Your task to perform on an android device: Open the stopwatch Image 0: 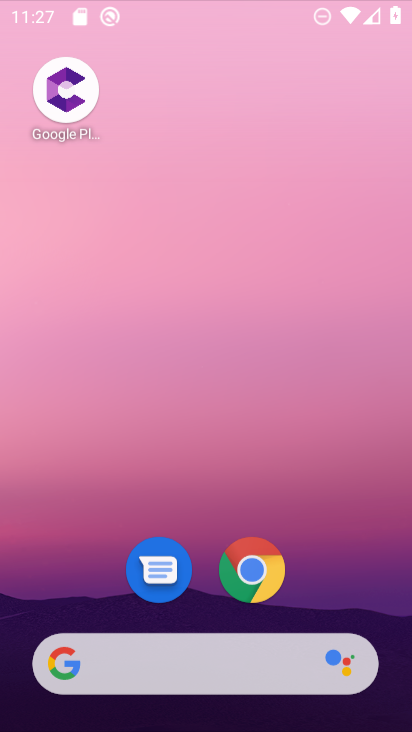
Step 0: click (158, 17)
Your task to perform on an android device: Open the stopwatch Image 1: 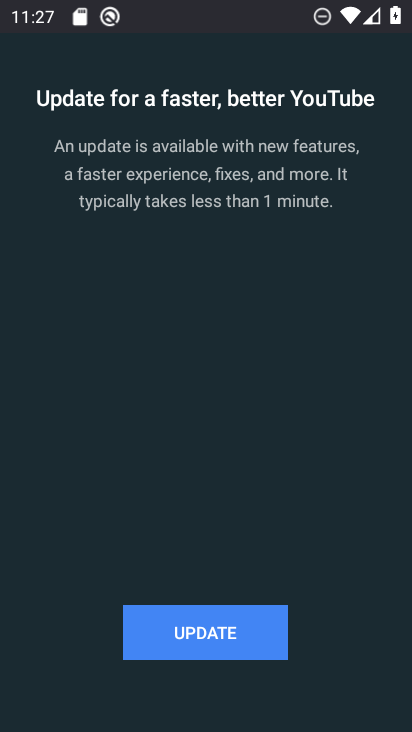
Step 1: click (200, 628)
Your task to perform on an android device: Open the stopwatch Image 2: 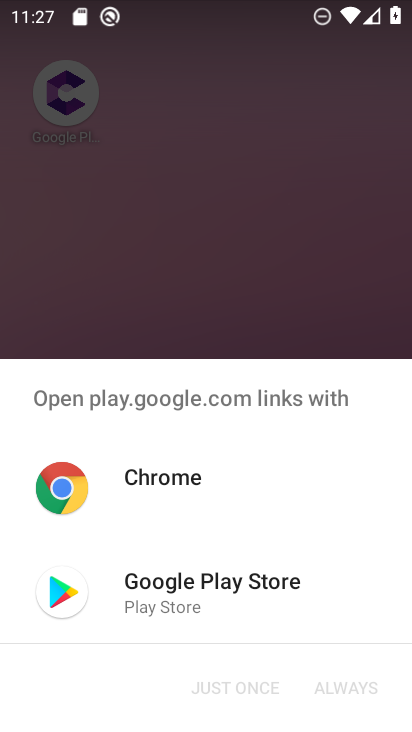
Step 2: press home button
Your task to perform on an android device: Open the stopwatch Image 3: 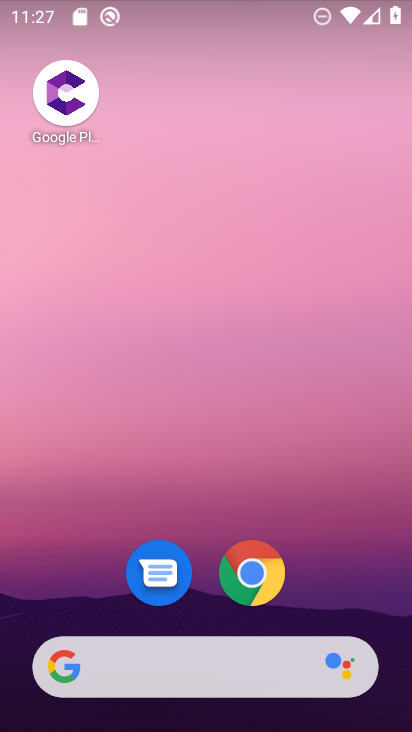
Step 3: drag from (223, 457) to (202, 28)
Your task to perform on an android device: Open the stopwatch Image 4: 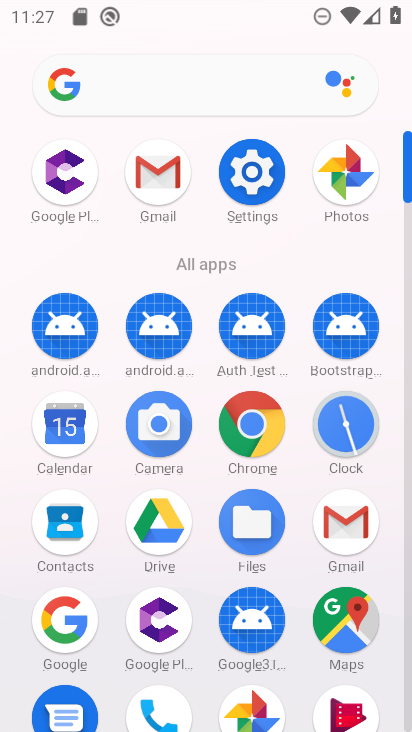
Step 4: click (342, 426)
Your task to perform on an android device: Open the stopwatch Image 5: 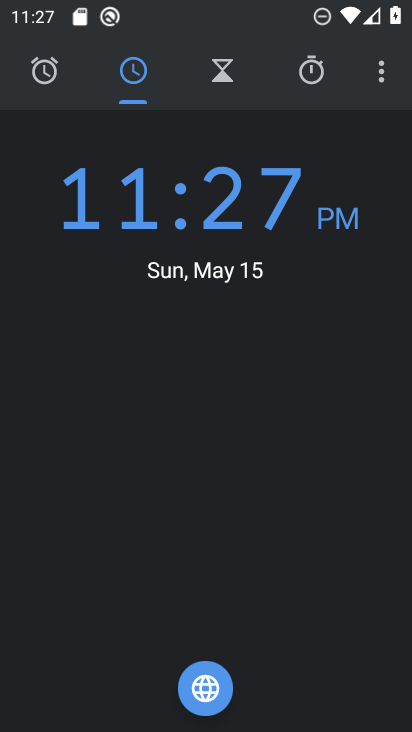
Step 5: click (315, 72)
Your task to perform on an android device: Open the stopwatch Image 6: 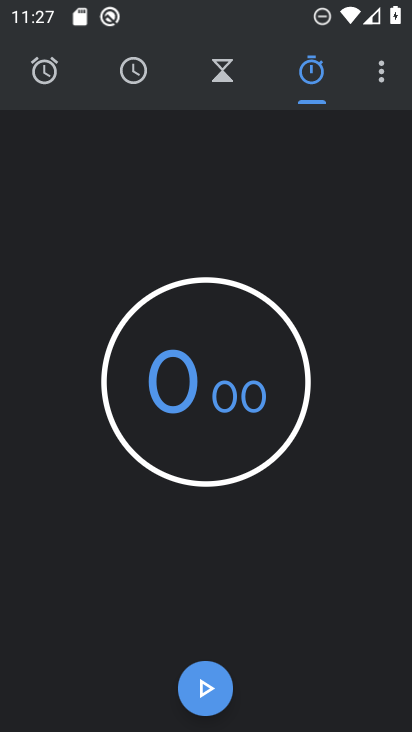
Step 6: task complete